Your task to perform on an android device: Search for seafood restaurants on Google Maps Image 0: 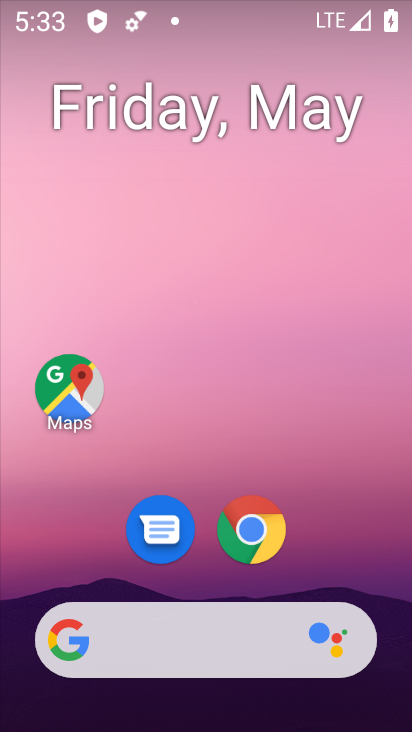
Step 0: click (63, 399)
Your task to perform on an android device: Search for seafood restaurants on Google Maps Image 1: 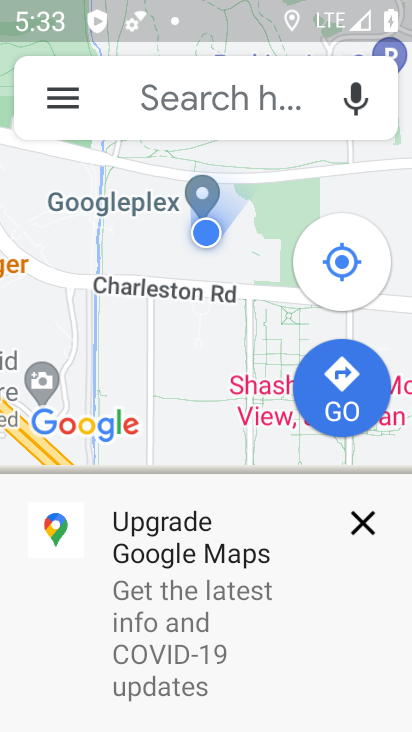
Step 1: click (192, 92)
Your task to perform on an android device: Search for seafood restaurants on Google Maps Image 2: 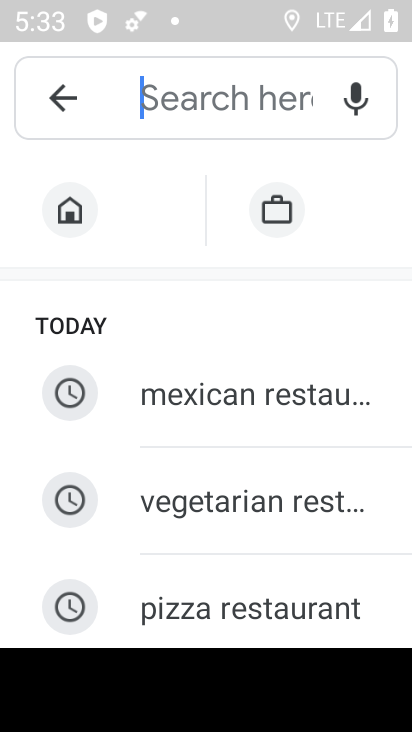
Step 2: type "seafood restaurant"
Your task to perform on an android device: Search for seafood restaurants on Google Maps Image 3: 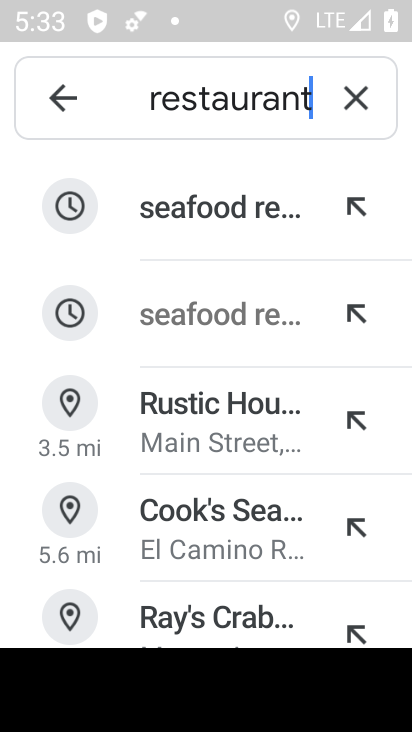
Step 3: click (134, 200)
Your task to perform on an android device: Search for seafood restaurants on Google Maps Image 4: 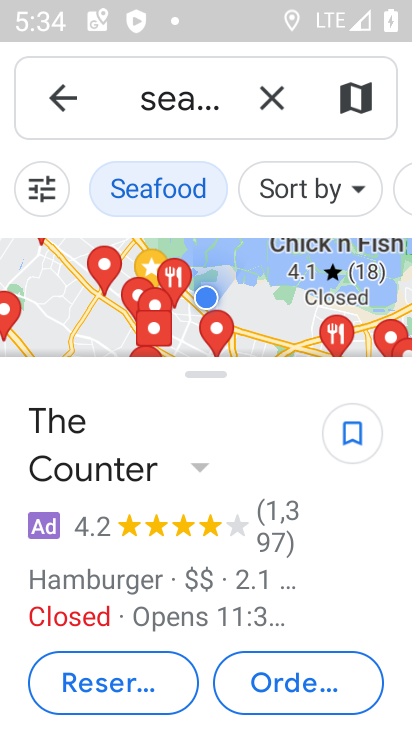
Step 4: task complete